Your task to perform on an android device: When is my next appointment? Image 0: 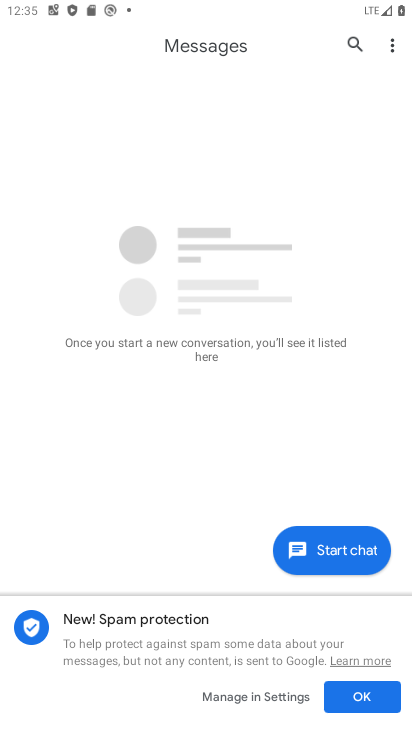
Step 0: press home button
Your task to perform on an android device: When is my next appointment? Image 1: 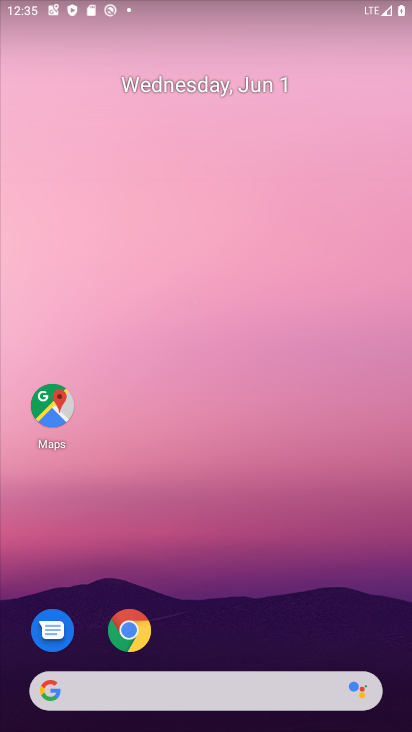
Step 1: drag from (256, 562) to (275, 195)
Your task to perform on an android device: When is my next appointment? Image 2: 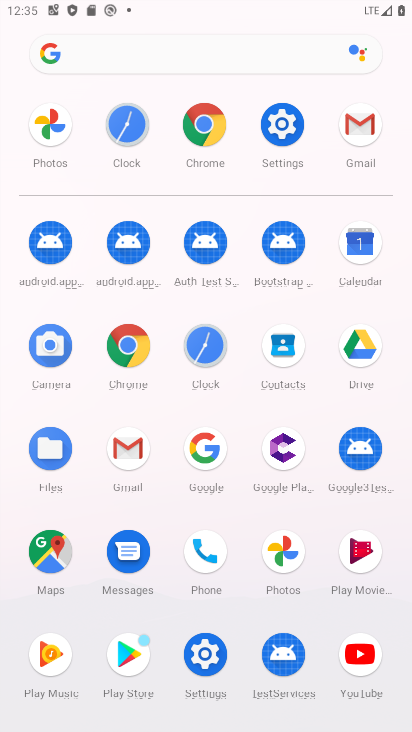
Step 2: click (365, 238)
Your task to perform on an android device: When is my next appointment? Image 3: 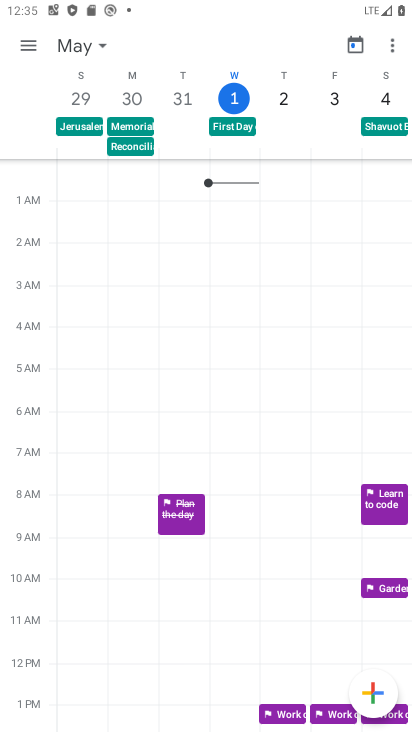
Step 3: click (31, 47)
Your task to perform on an android device: When is my next appointment? Image 4: 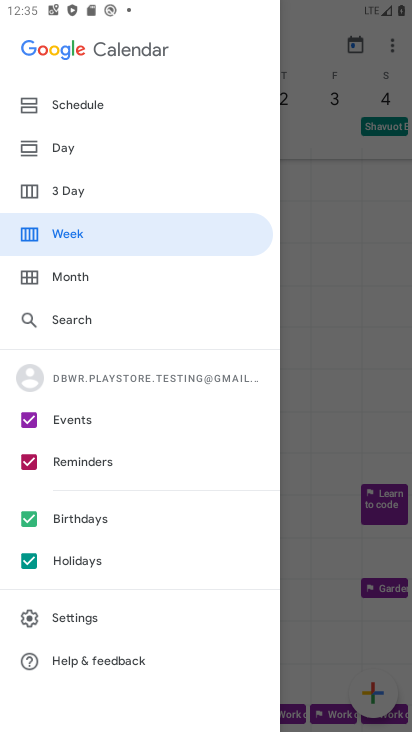
Step 4: click (67, 100)
Your task to perform on an android device: When is my next appointment? Image 5: 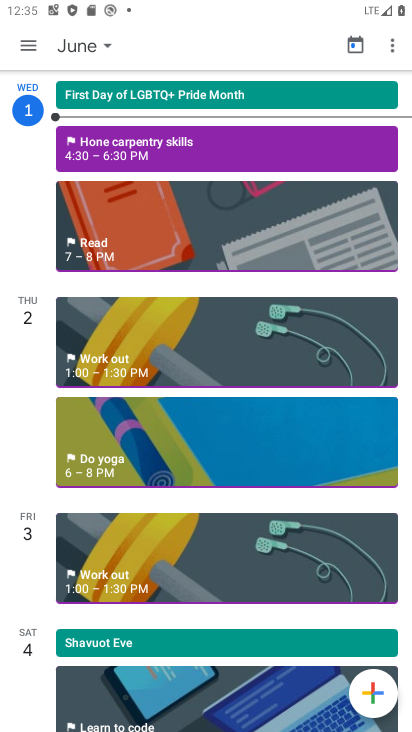
Step 5: task complete